Your task to perform on an android device: Go to Google maps Image 0: 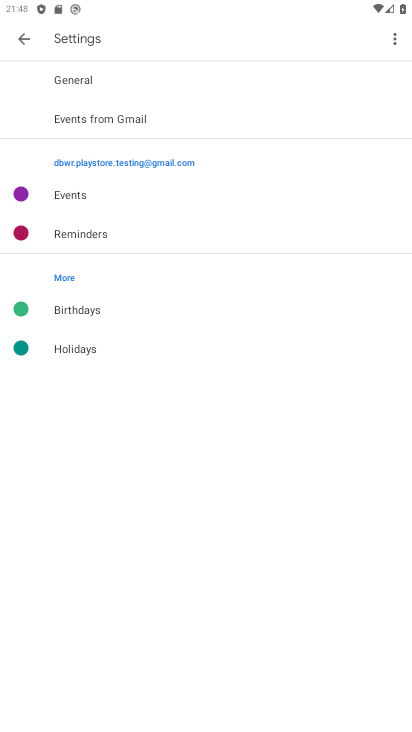
Step 0: press home button
Your task to perform on an android device: Go to Google maps Image 1: 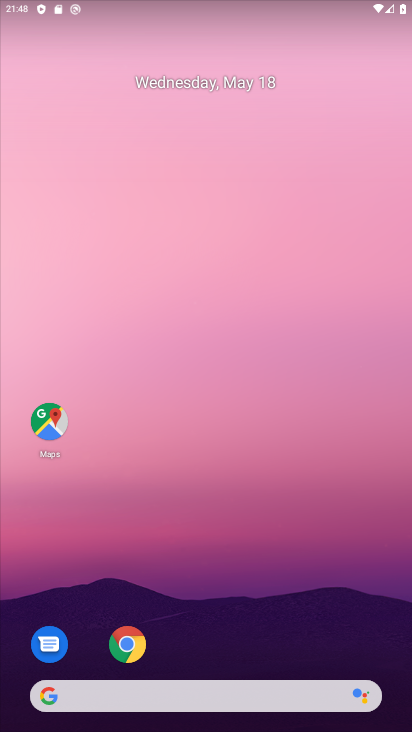
Step 1: drag from (252, 655) to (285, 193)
Your task to perform on an android device: Go to Google maps Image 2: 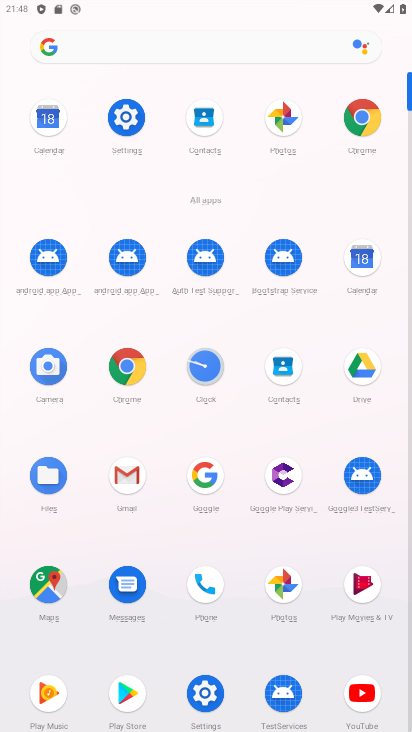
Step 2: click (54, 573)
Your task to perform on an android device: Go to Google maps Image 3: 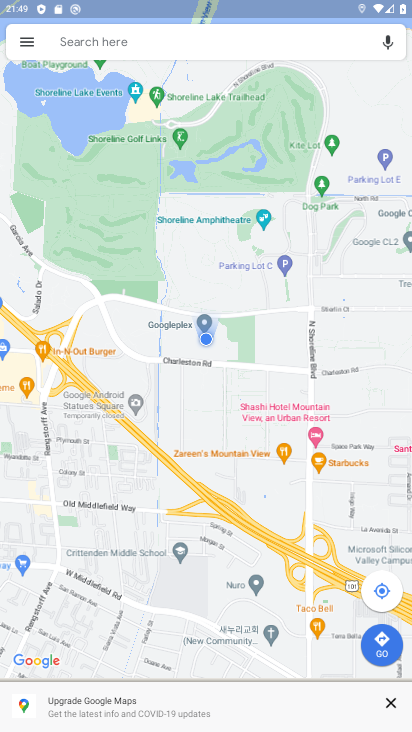
Step 3: task complete